Your task to perform on an android device: Do I have any events today? Image 0: 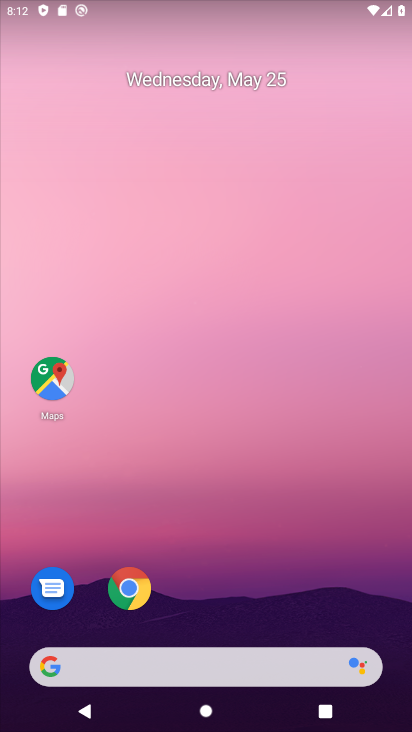
Step 0: drag from (18, 632) to (333, 147)
Your task to perform on an android device: Do I have any events today? Image 1: 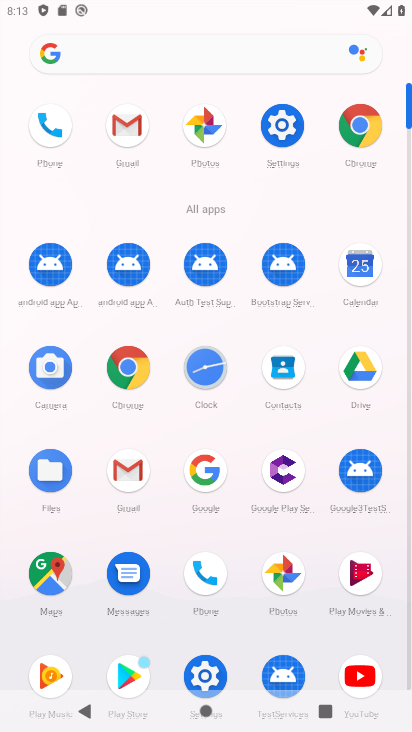
Step 1: click (364, 265)
Your task to perform on an android device: Do I have any events today? Image 2: 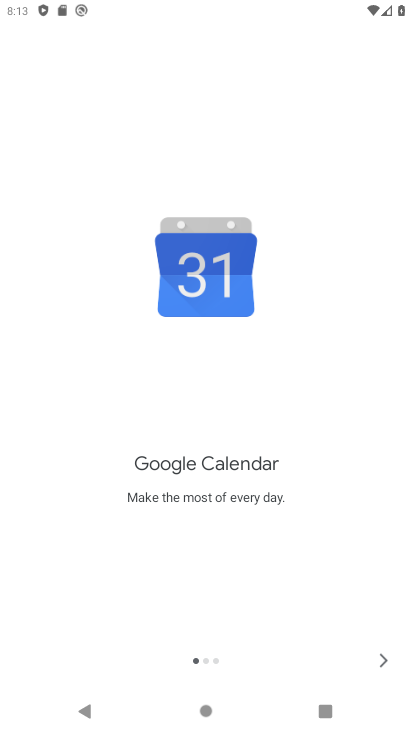
Step 2: click (380, 658)
Your task to perform on an android device: Do I have any events today? Image 3: 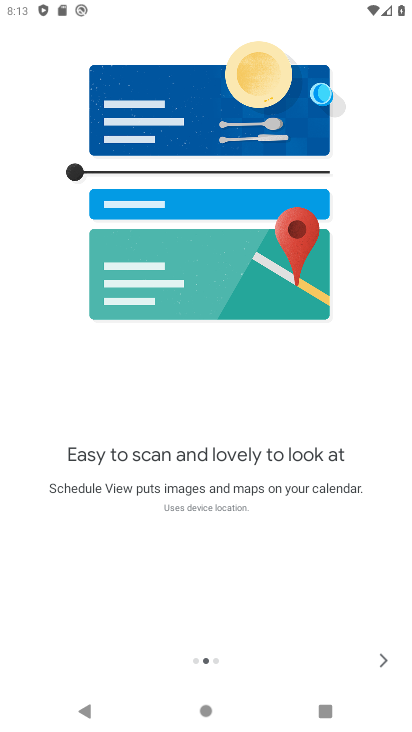
Step 3: click (379, 657)
Your task to perform on an android device: Do I have any events today? Image 4: 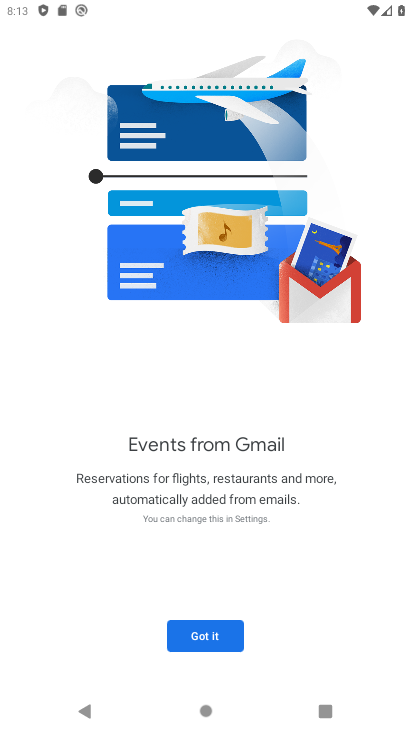
Step 4: click (196, 638)
Your task to perform on an android device: Do I have any events today? Image 5: 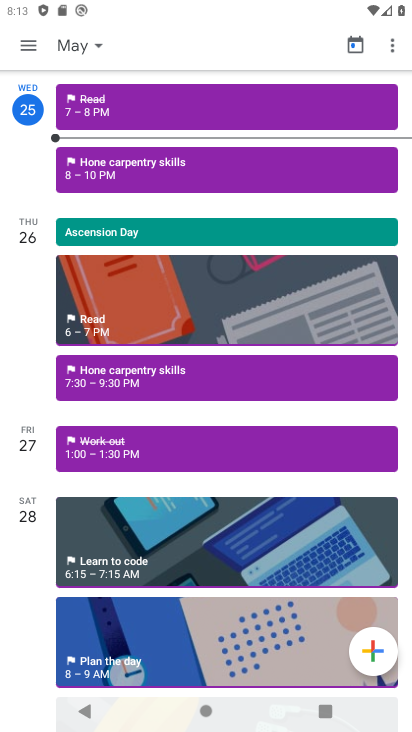
Step 5: click (83, 48)
Your task to perform on an android device: Do I have any events today? Image 6: 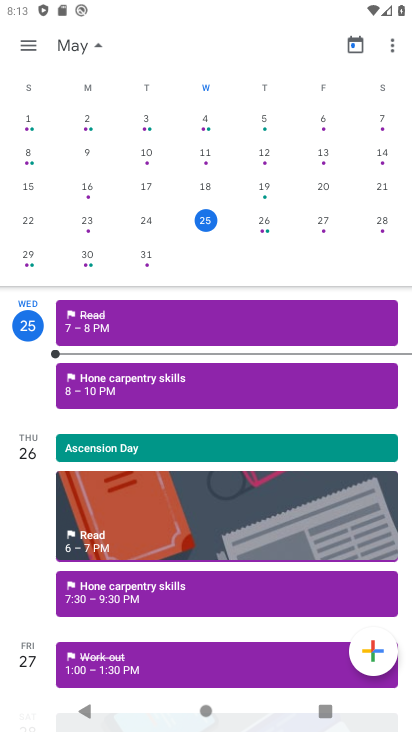
Step 6: task complete